Your task to perform on an android device: Go to calendar. Show me events next week Image 0: 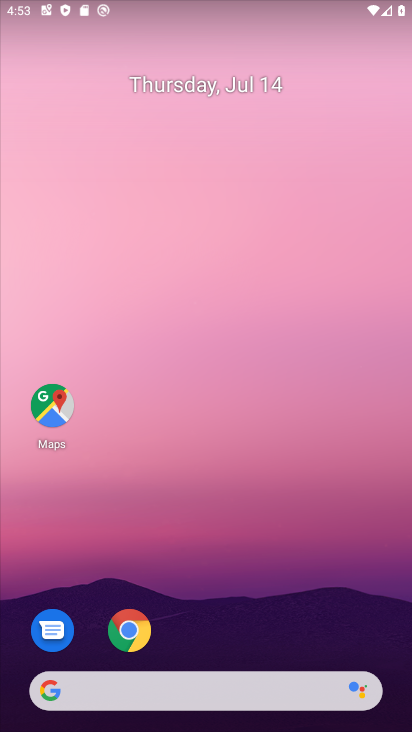
Step 0: drag from (272, 647) to (287, 1)
Your task to perform on an android device: Go to calendar. Show me events next week Image 1: 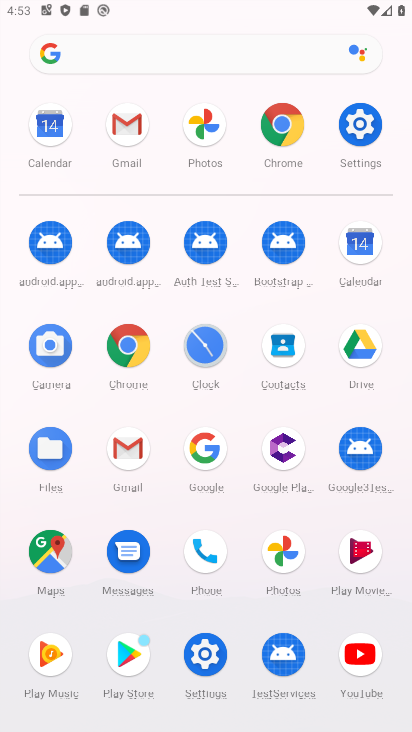
Step 1: click (369, 249)
Your task to perform on an android device: Go to calendar. Show me events next week Image 2: 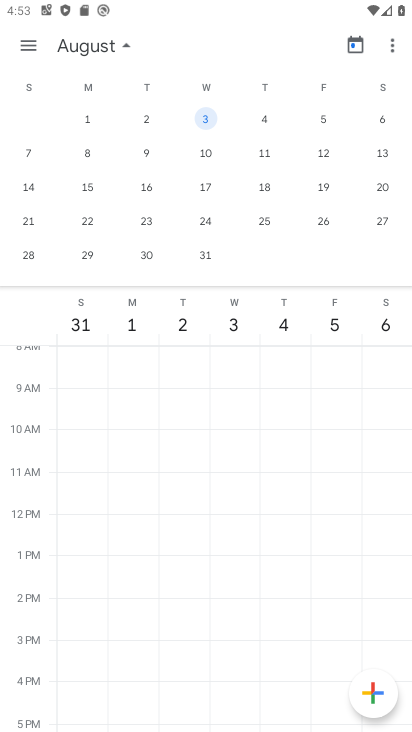
Step 2: drag from (85, 177) to (411, 245)
Your task to perform on an android device: Go to calendar. Show me events next week Image 3: 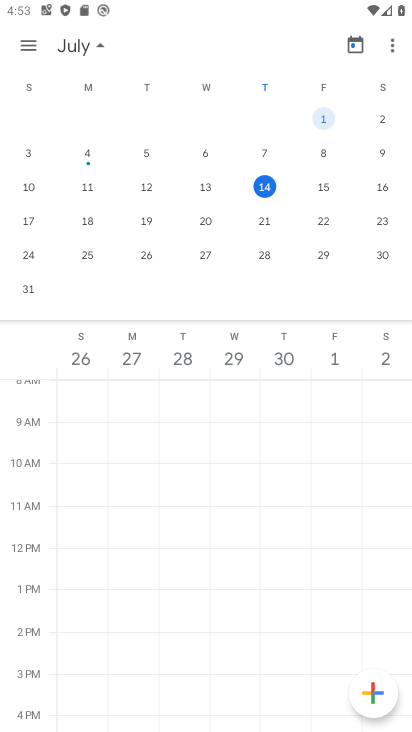
Step 3: click (201, 221)
Your task to perform on an android device: Go to calendar. Show me events next week Image 4: 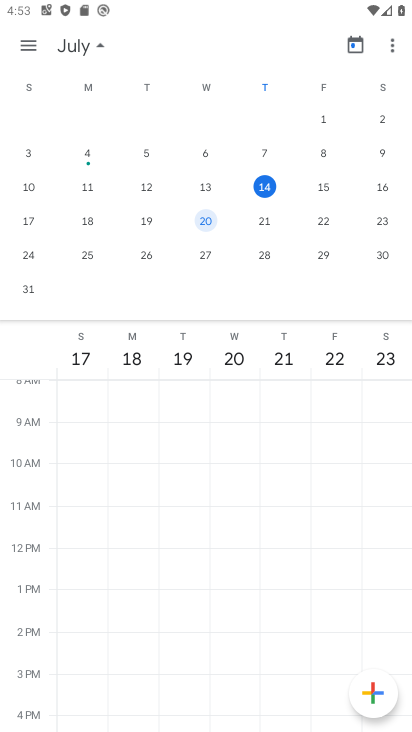
Step 4: task complete